Your task to perform on an android device: Go to Wikipedia Image 0: 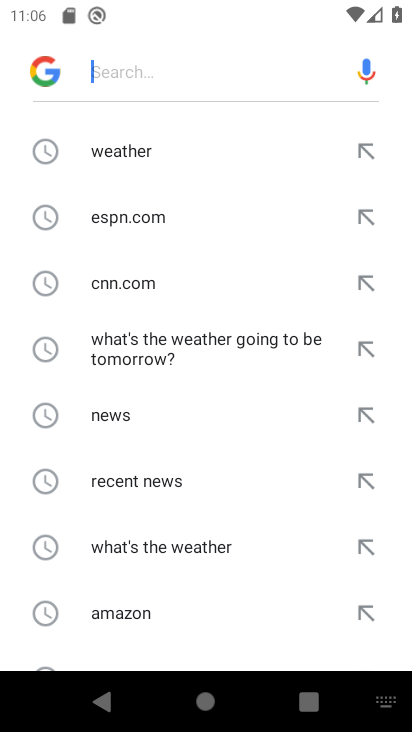
Step 0: press home button
Your task to perform on an android device: Go to Wikipedia Image 1: 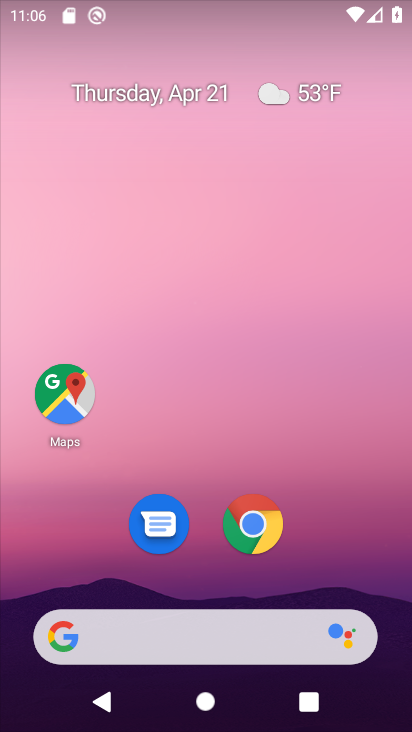
Step 1: click (251, 528)
Your task to perform on an android device: Go to Wikipedia Image 2: 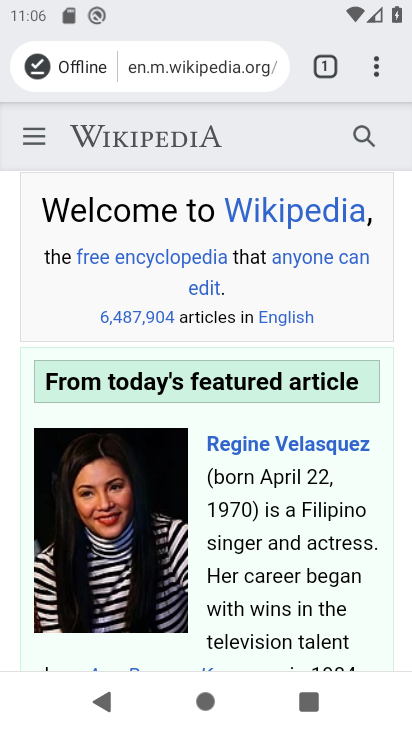
Step 2: task complete